Your task to perform on an android device: check android version Image 0: 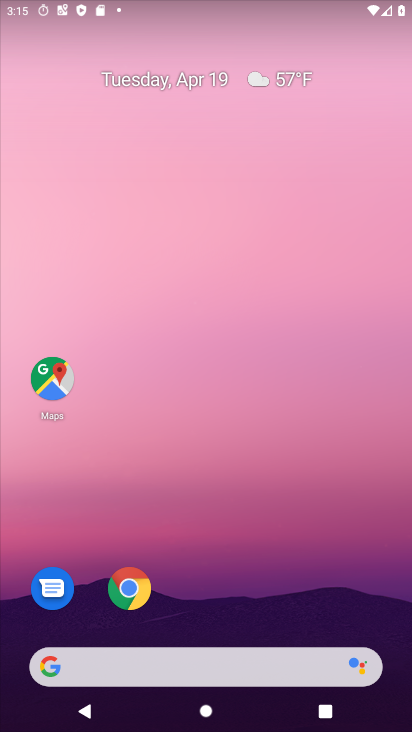
Step 0: drag from (197, 635) to (273, 395)
Your task to perform on an android device: check android version Image 1: 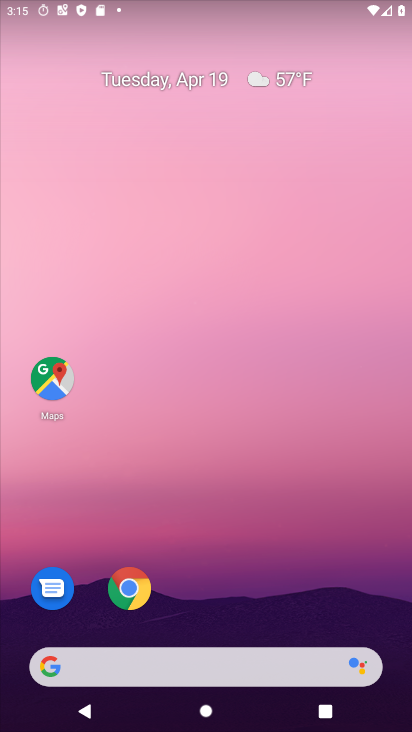
Step 1: drag from (193, 611) to (321, 345)
Your task to perform on an android device: check android version Image 2: 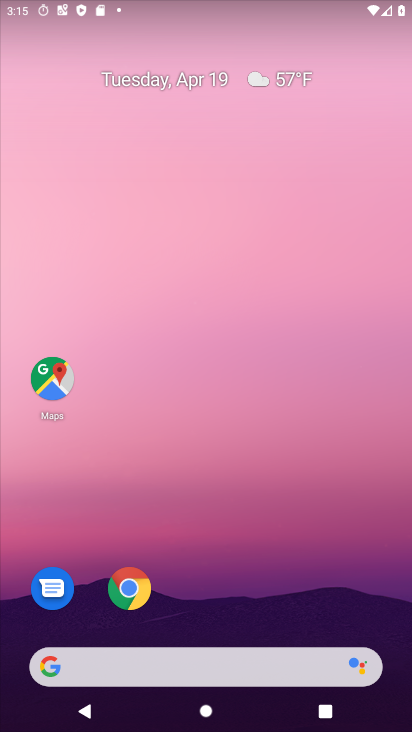
Step 2: drag from (210, 613) to (312, 80)
Your task to perform on an android device: check android version Image 3: 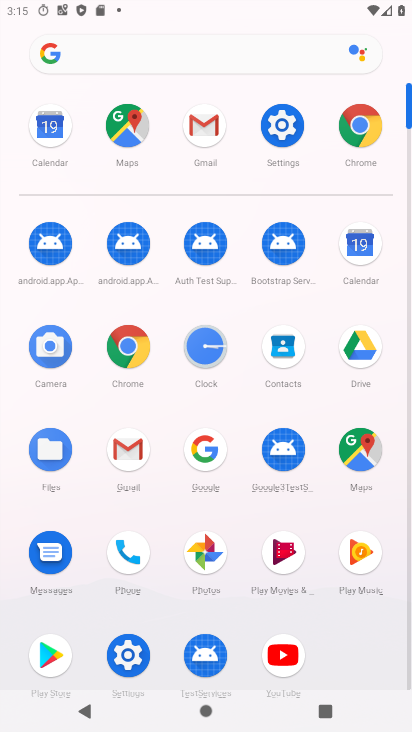
Step 3: click (138, 657)
Your task to perform on an android device: check android version Image 4: 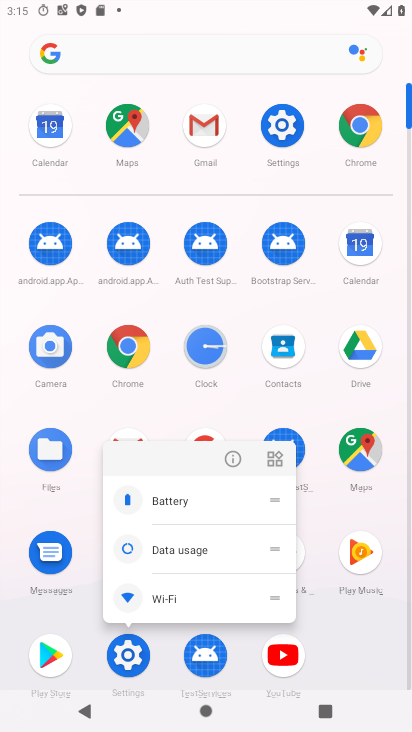
Step 4: click (230, 447)
Your task to perform on an android device: check android version Image 5: 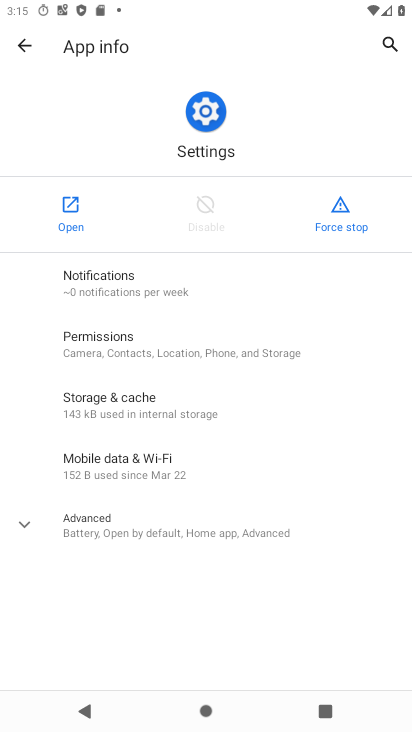
Step 5: click (61, 197)
Your task to perform on an android device: check android version Image 6: 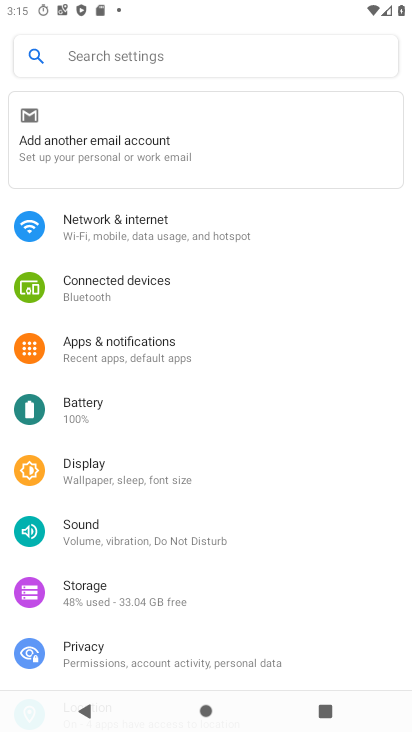
Step 6: drag from (171, 600) to (308, 13)
Your task to perform on an android device: check android version Image 7: 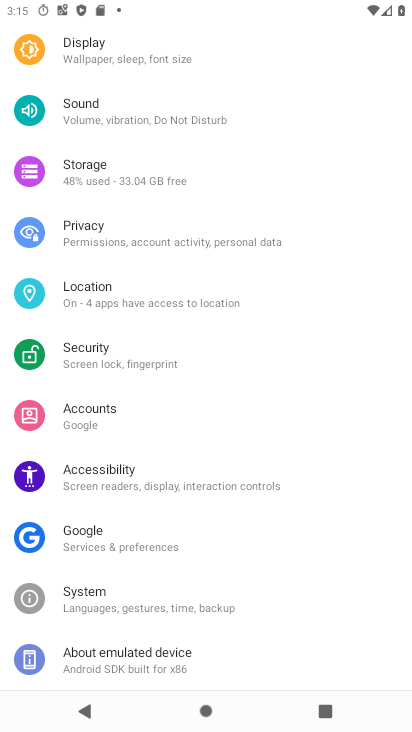
Step 7: click (141, 655)
Your task to perform on an android device: check android version Image 8: 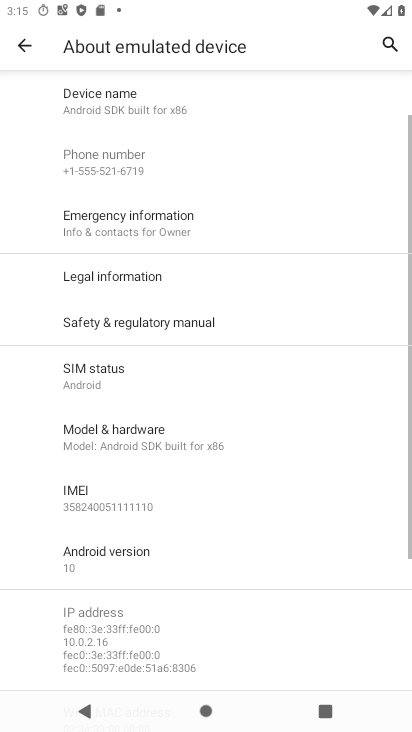
Step 8: click (168, 556)
Your task to perform on an android device: check android version Image 9: 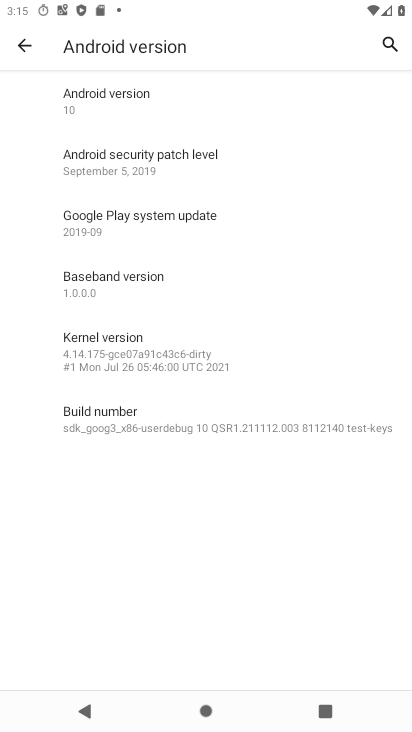
Step 9: task complete